Your task to perform on an android device: open wifi settings Image 0: 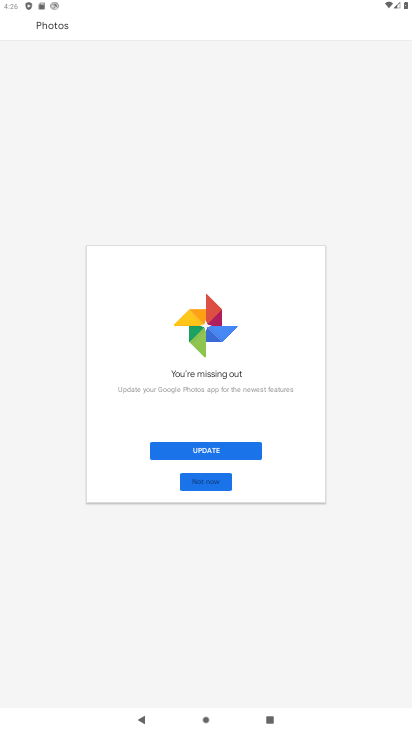
Step 0: press home button
Your task to perform on an android device: open wifi settings Image 1: 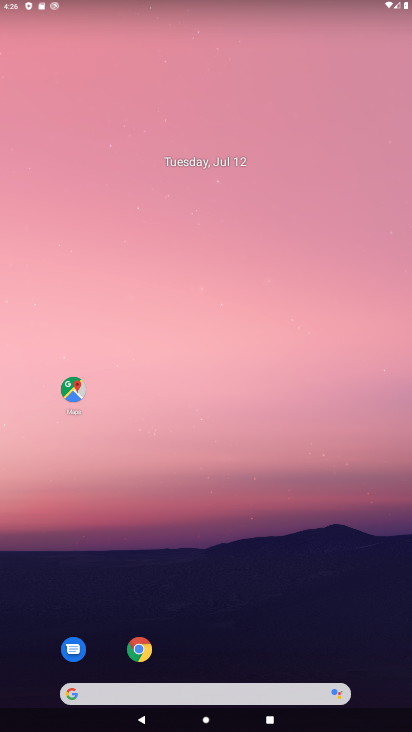
Step 1: drag from (157, 694) to (221, 63)
Your task to perform on an android device: open wifi settings Image 2: 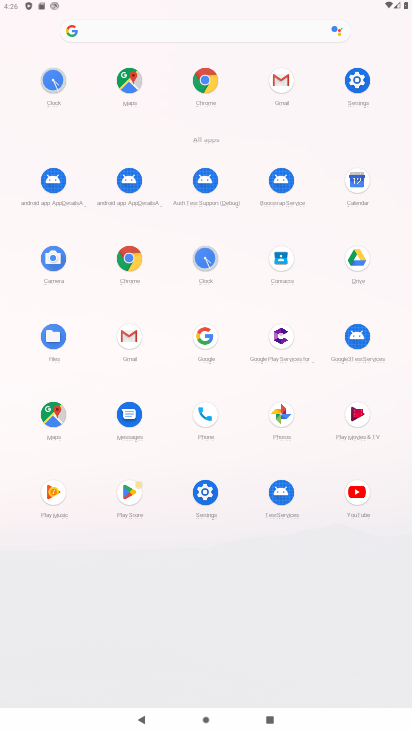
Step 2: click (359, 82)
Your task to perform on an android device: open wifi settings Image 3: 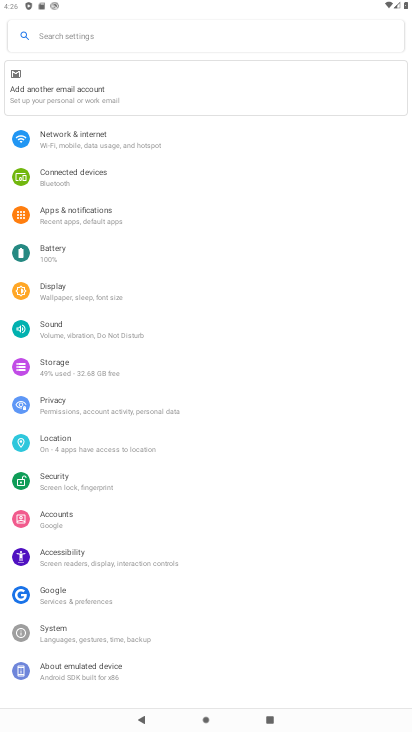
Step 3: click (78, 138)
Your task to perform on an android device: open wifi settings Image 4: 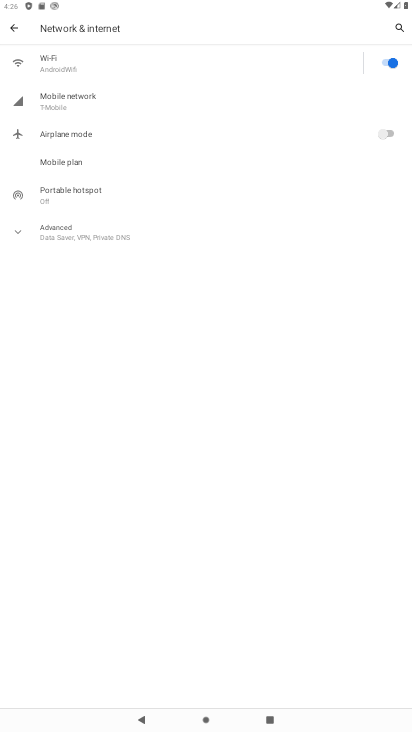
Step 4: click (54, 68)
Your task to perform on an android device: open wifi settings Image 5: 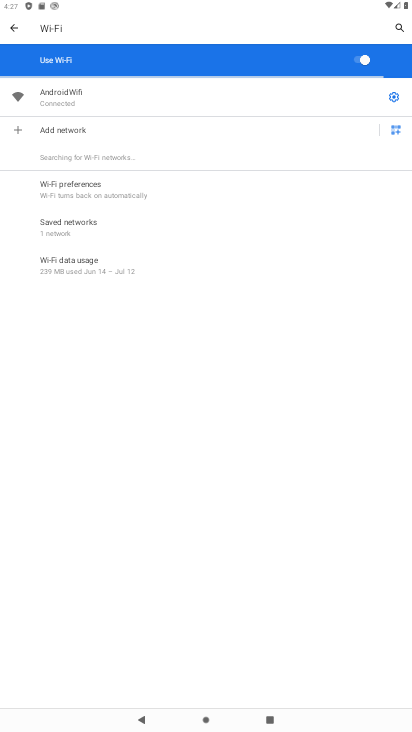
Step 5: click (392, 100)
Your task to perform on an android device: open wifi settings Image 6: 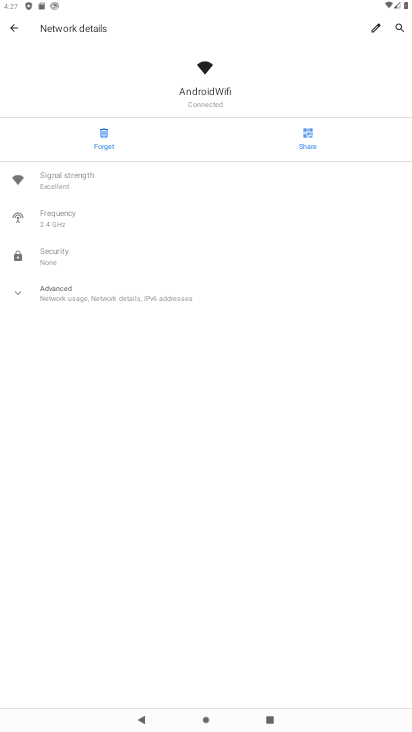
Step 6: task complete